Your task to perform on an android device: open a bookmark in the chrome app Image 0: 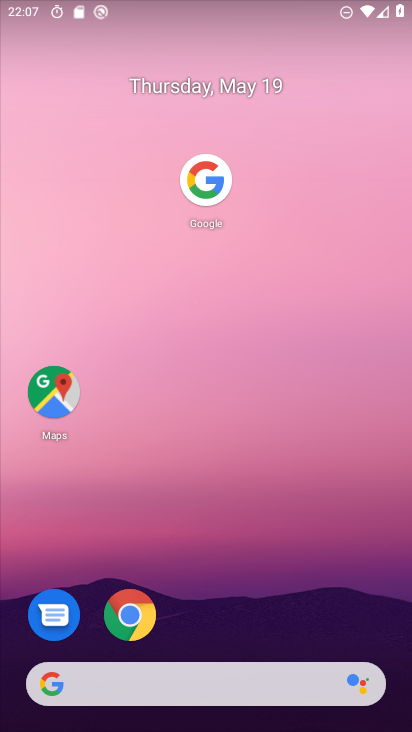
Step 0: click (134, 614)
Your task to perform on an android device: open a bookmark in the chrome app Image 1: 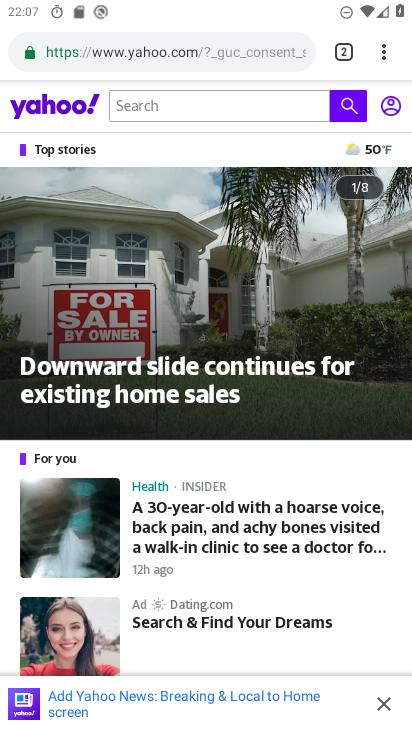
Step 1: click (375, 48)
Your task to perform on an android device: open a bookmark in the chrome app Image 2: 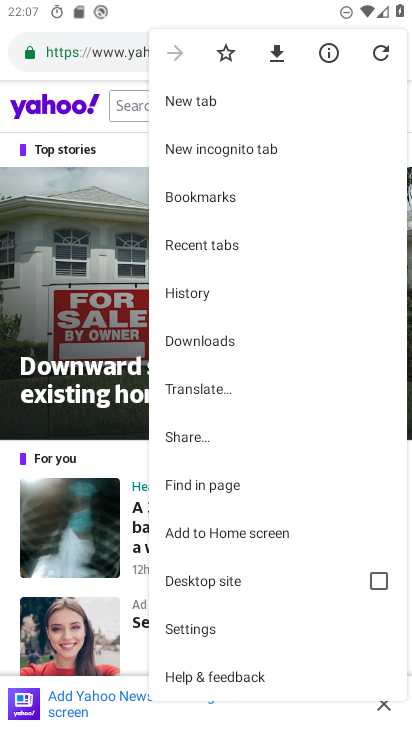
Step 2: click (224, 200)
Your task to perform on an android device: open a bookmark in the chrome app Image 3: 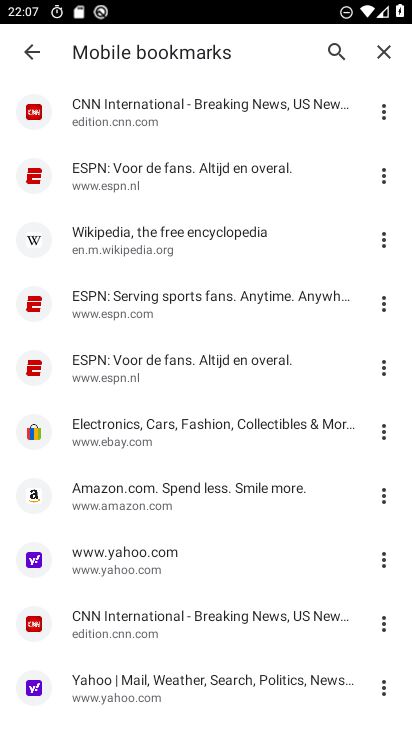
Step 3: click (166, 252)
Your task to perform on an android device: open a bookmark in the chrome app Image 4: 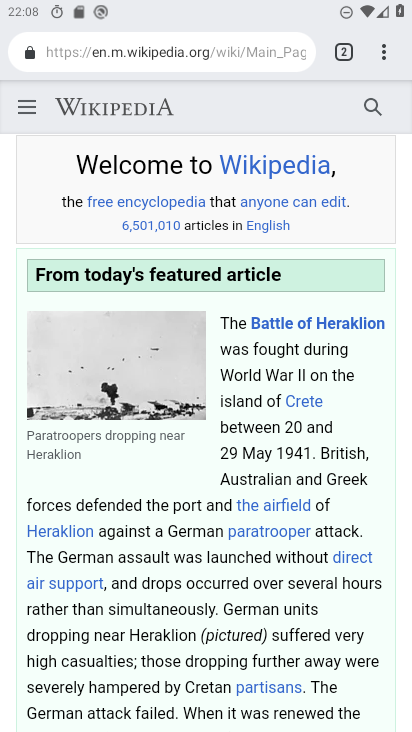
Step 4: task complete